Your task to perform on an android device: empty trash in google photos Image 0: 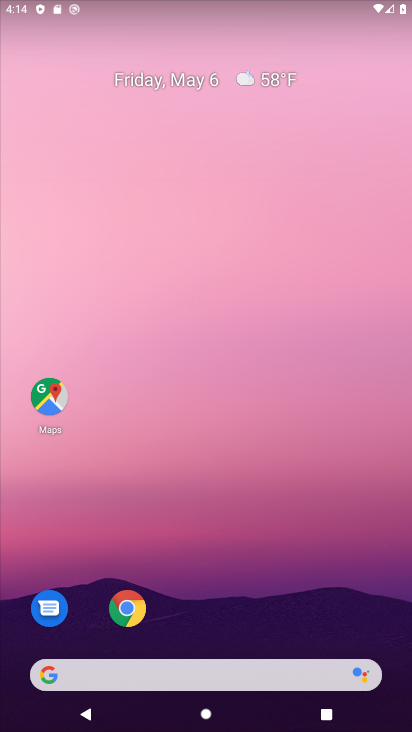
Step 0: drag from (200, 624) to (307, 91)
Your task to perform on an android device: empty trash in google photos Image 1: 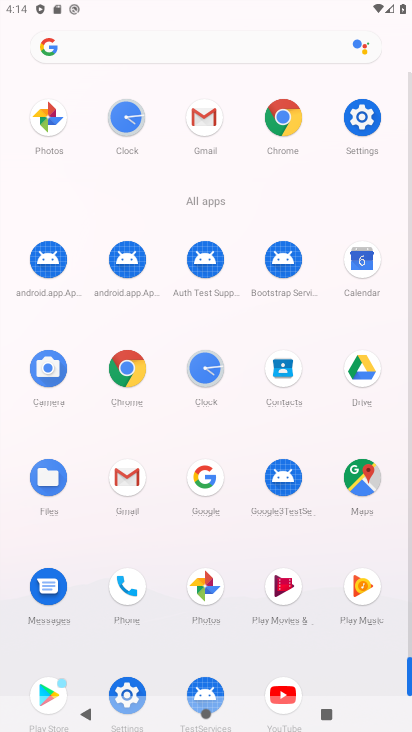
Step 1: click (209, 579)
Your task to perform on an android device: empty trash in google photos Image 2: 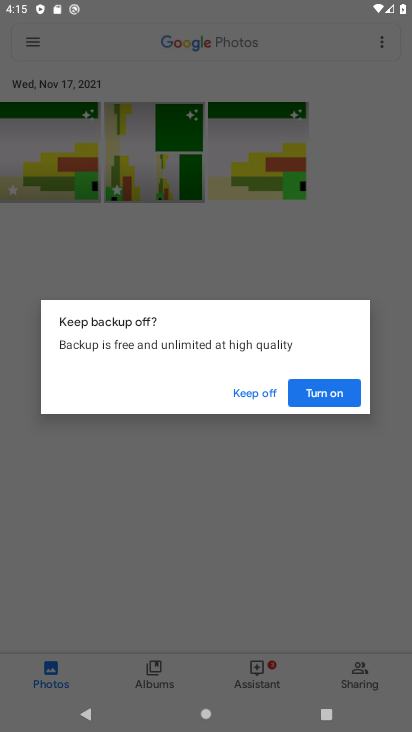
Step 2: click (260, 398)
Your task to perform on an android device: empty trash in google photos Image 3: 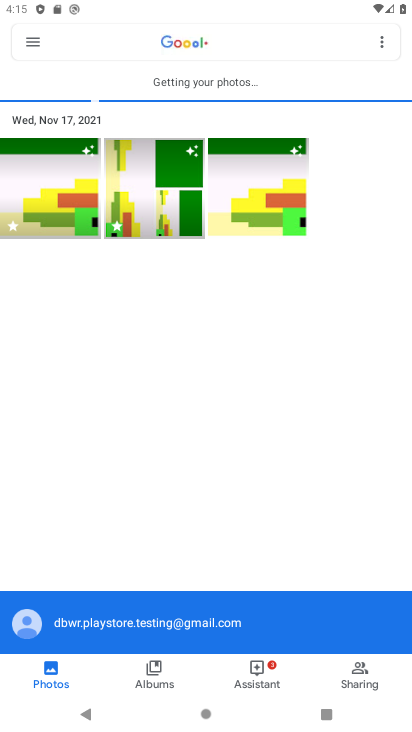
Step 3: click (56, 34)
Your task to perform on an android device: empty trash in google photos Image 4: 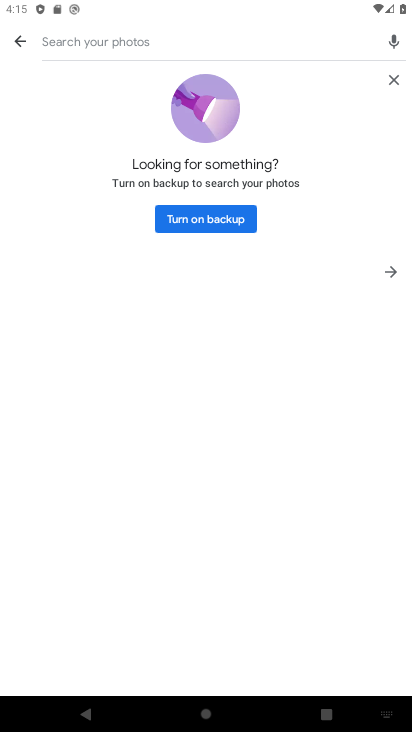
Step 4: click (25, 43)
Your task to perform on an android device: empty trash in google photos Image 5: 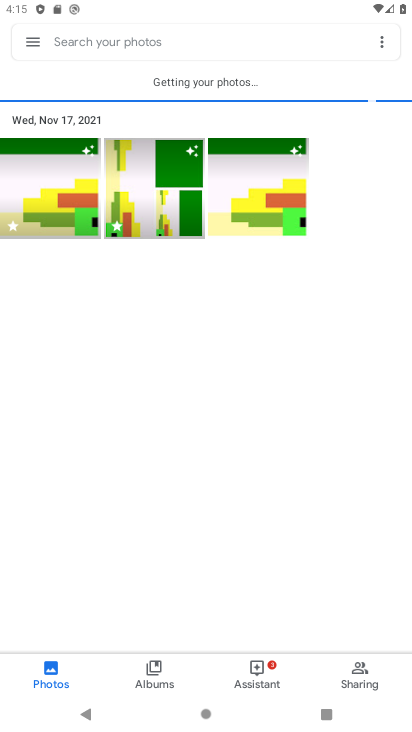
Step 5: click (25, 43)
Your task to perform on an android device: empty trash in google photos Image 6: 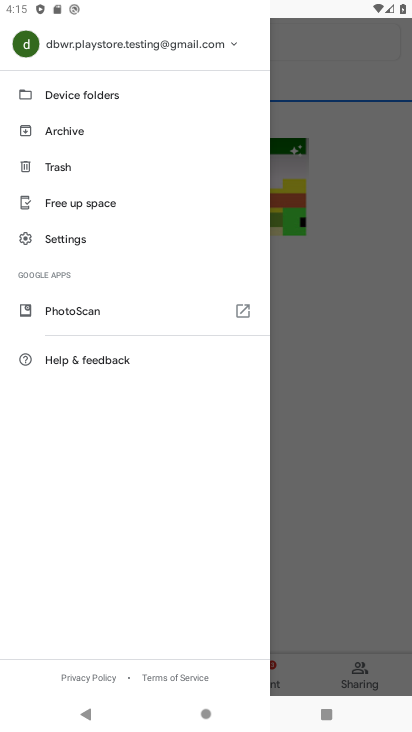
Step 6: click (94, 164)
Your task to perform on an android device: empty trash in google photos Image 7: 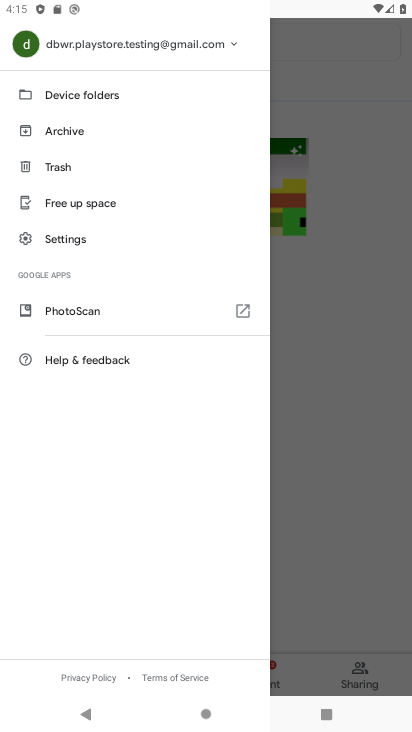
Step 7: click (63, 168)
Your task to perform on an android device: empty trash in google photos Image 8: 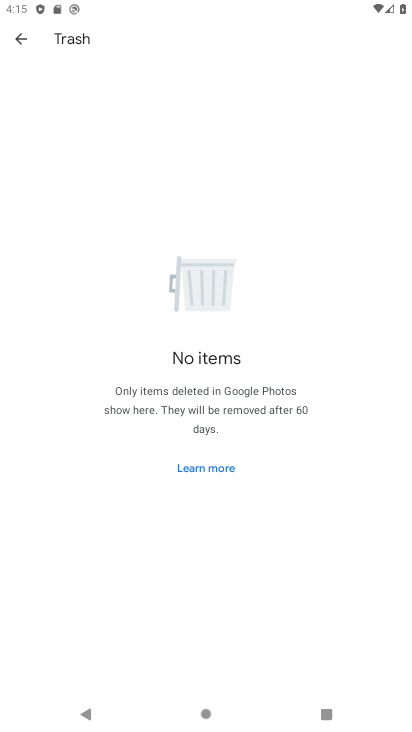
Step 8: task complete